Your task to perform on an android device: Open calendar and show me the first week of next month Image 0: 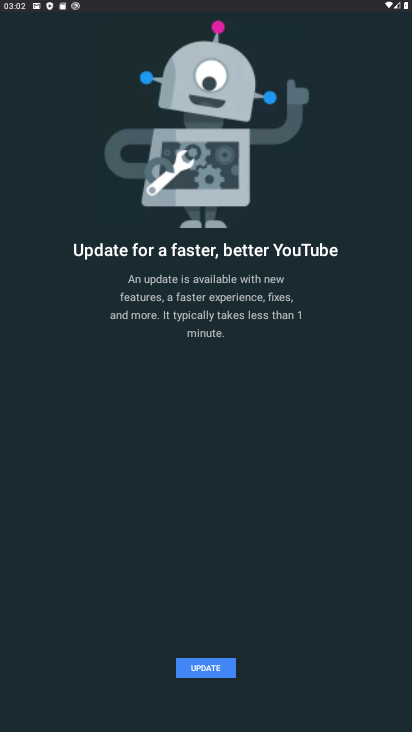
Step 0: press home button
Your task to perform on an android device: Open calendar and show me the first week of next month Image 1: 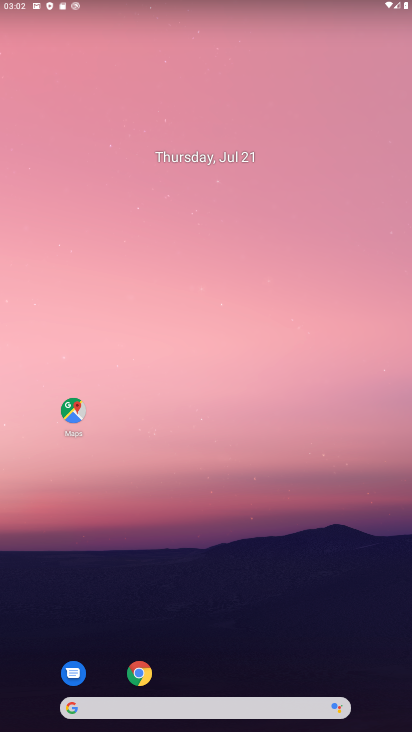
Step 1: drag from (326, 637) to (149, 99)
Your task to perform on an android device: Open calendar and show me the first week of next month Image 2: 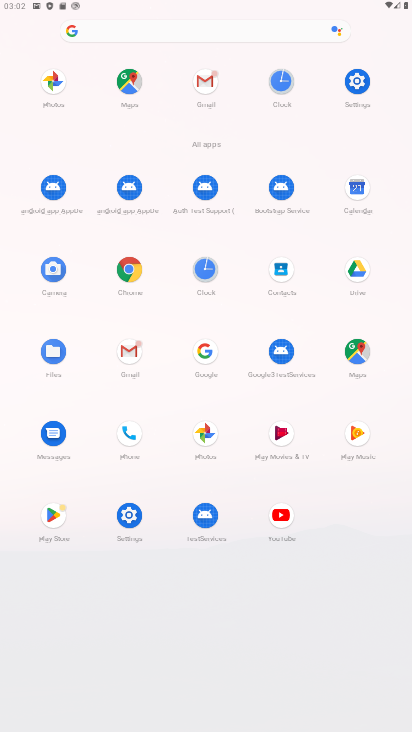
Step 2: click (362, 191)
Your task to perform on an android device: Open calendar and show me the first week of next month Image 3: 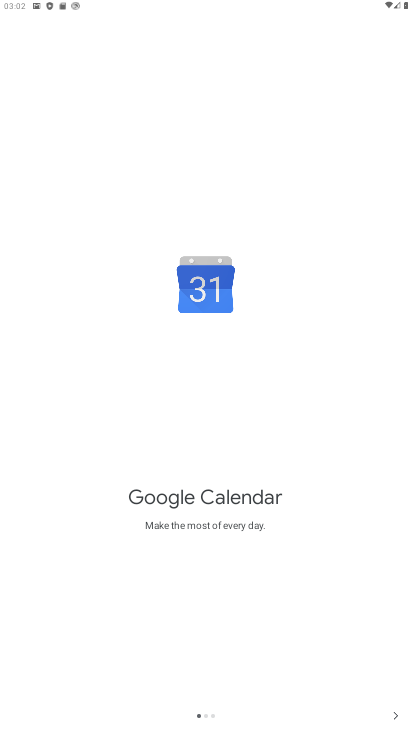
Step 3: click (395, 716)
Your task to perform on an android device: Open calendar and show me the first week of next month Image 4: 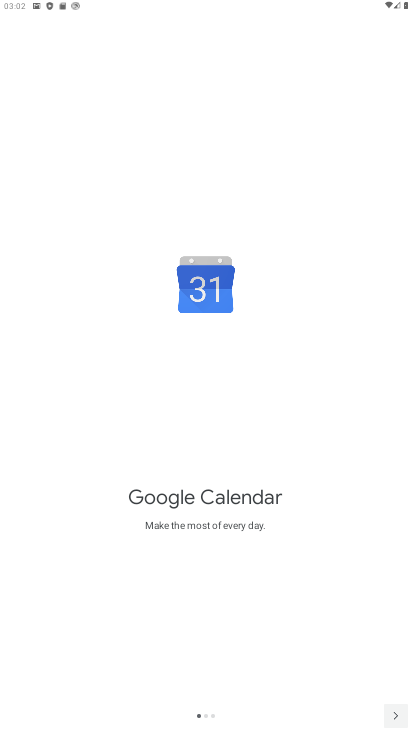
Step 4: click (395, 715)
Your task to perform on an android device: Open calendar and show me the first week of next month Image 5: 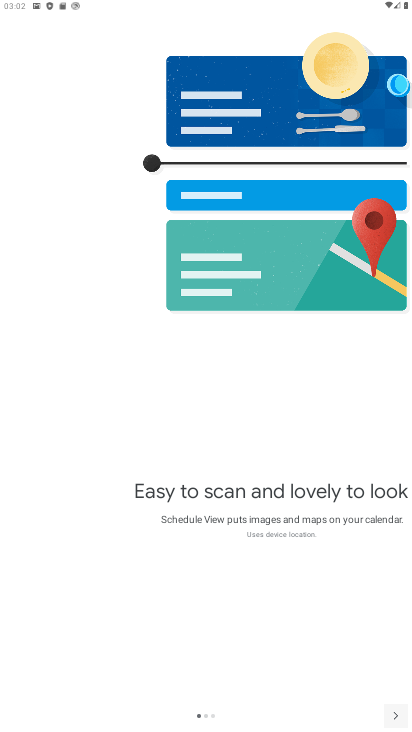
Step 5: click (395, 715)
Your task to perform on an android device: Open calendar and show me the first week of next month Image 6: 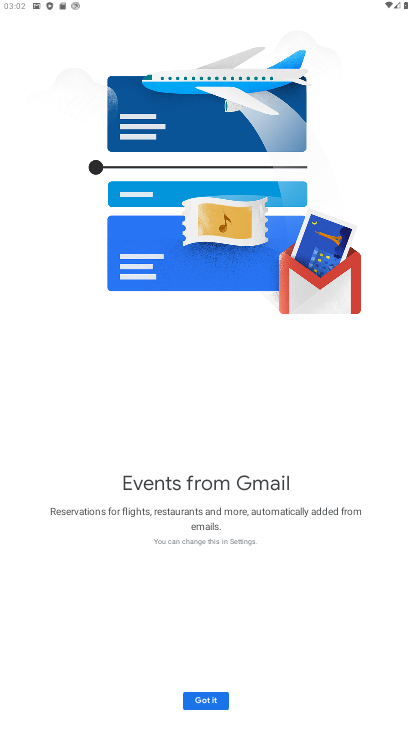
Step 6: click (188, 705)
Your task to perform on an android device: Open calendar and show me the first week of next month Image 7: 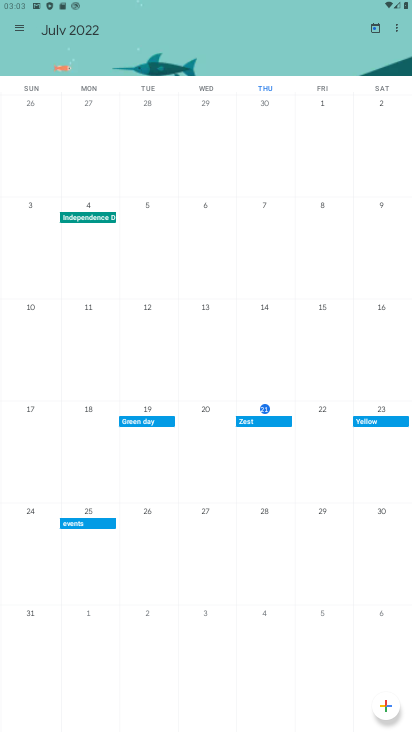
Step 7: click (72, 26)
Your task to perform on an android device: Open calendar and show me the first week of next month Image 8: 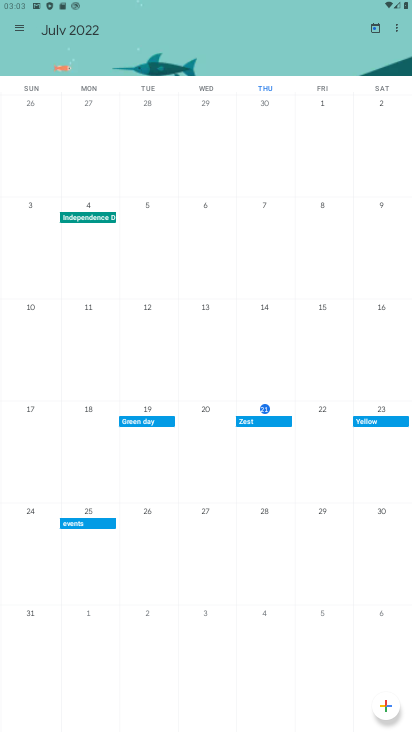
Step 8: click (84, 35)
Your task to perform on an android device: Open calendar and show me the first week of next month Image 9: 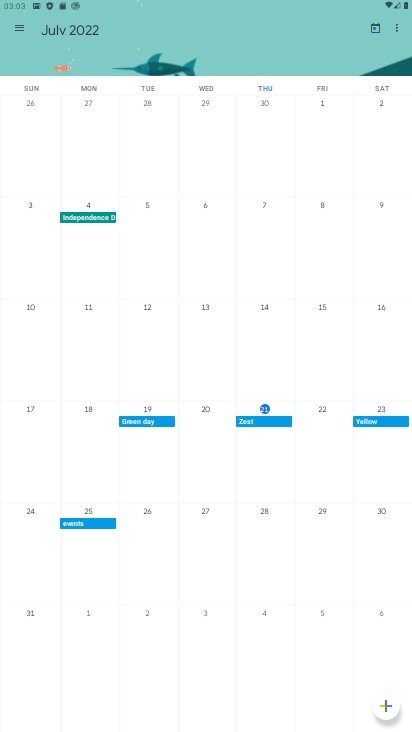
Step 9: click (88, 30)
Your task to perform on an android device: Open calendar and show me the first week of next month Image 10: 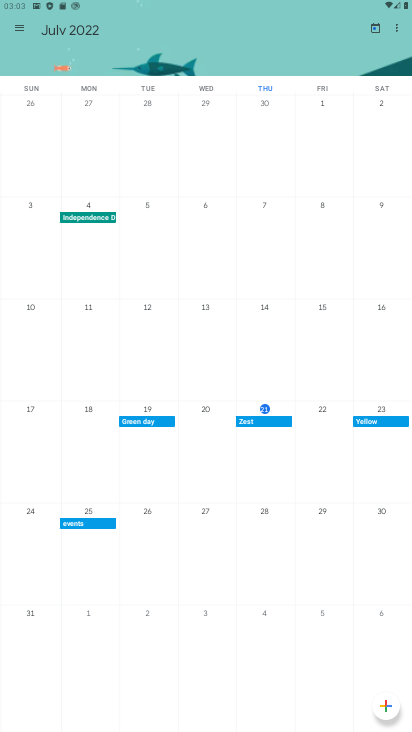
Step 10: click (59, 34)
Your task to perform on an android device: Open calendar and show me the first week of next month Image 11: 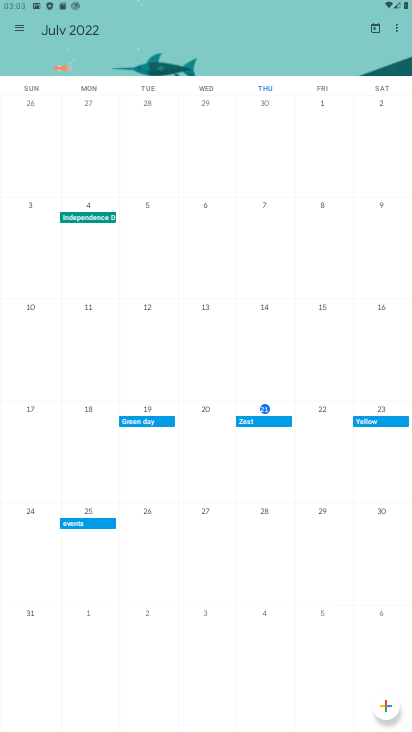
Step 11: click (60, 34)
Your task to perform on an android device: Open calendar and show me the first week of next month Image 12: 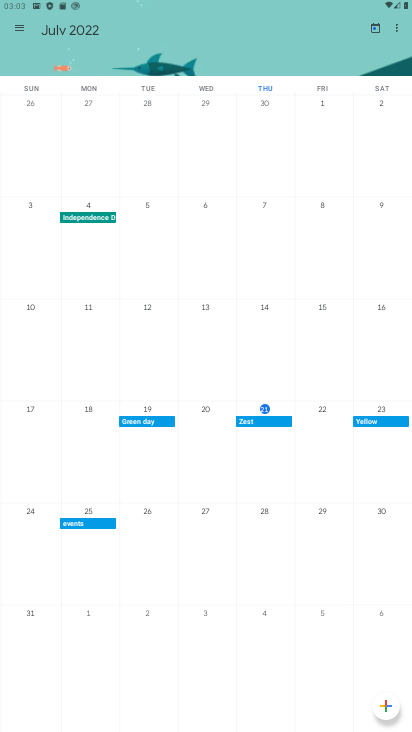
Step 12: drag from (366, 343) to (205, 361)
Your task to perform on an android device: Open calendar and show me the first week of next month Image 13: 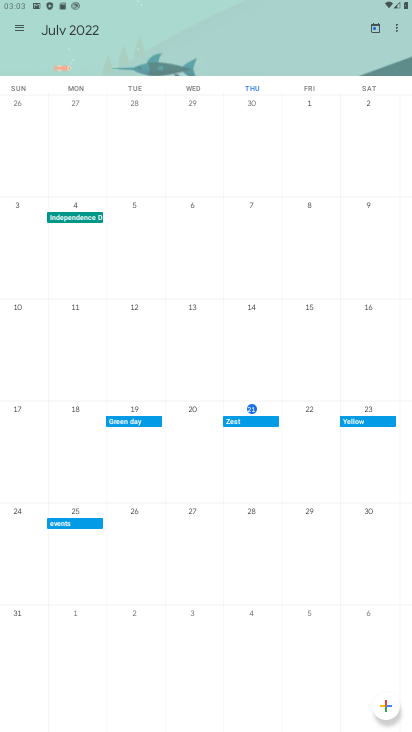
Step 13: drag from (227, 307) to (385, 484)
Your task to perform on an android device: Open calendar and show me the first week of next month Image 14: 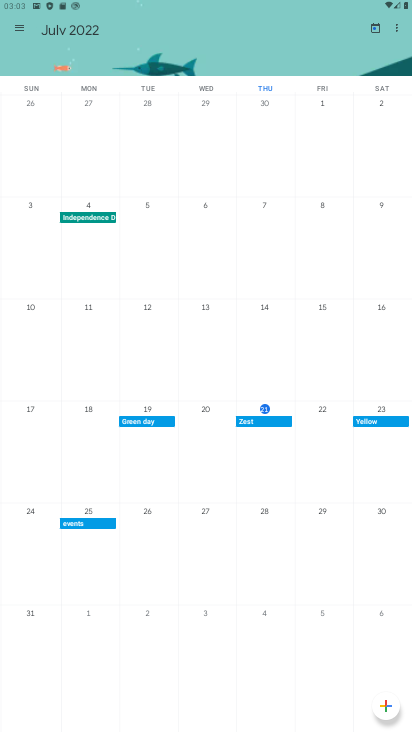
Step 14: drag from (349, 338) to (48, 369)
Your task to perform on an android device: Open calendar and show me the first week of next month Image 15: 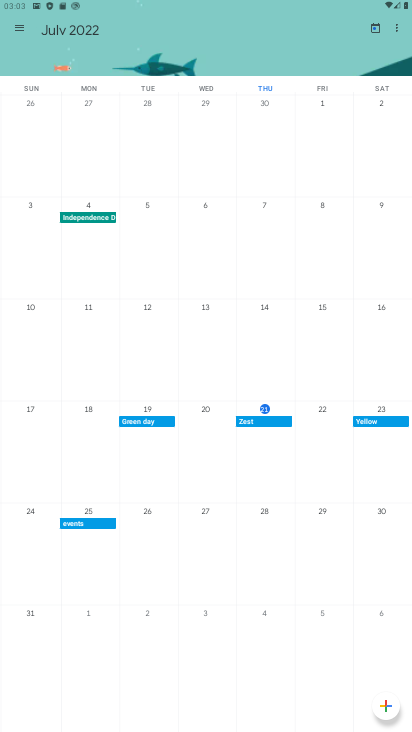
Step 15: drag from (381, 274) to (12, 299)
Your task to perform on an android device: Open calendar and show me the first week of next month Image 16: 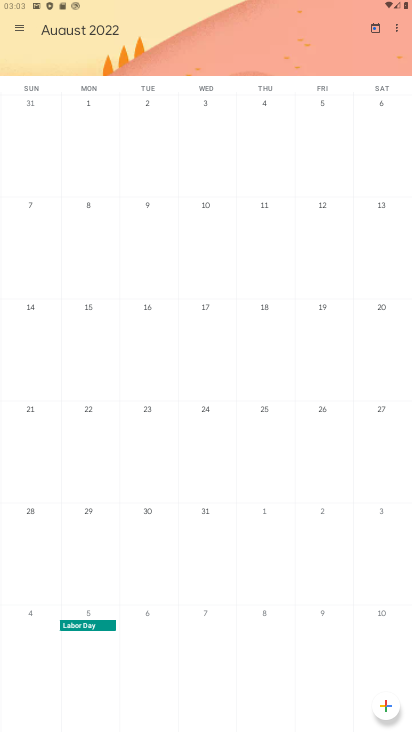
Step 16: click (210, 98)
Your task to perform on an android device: Open calendar and show me the first week of next month Image 17: 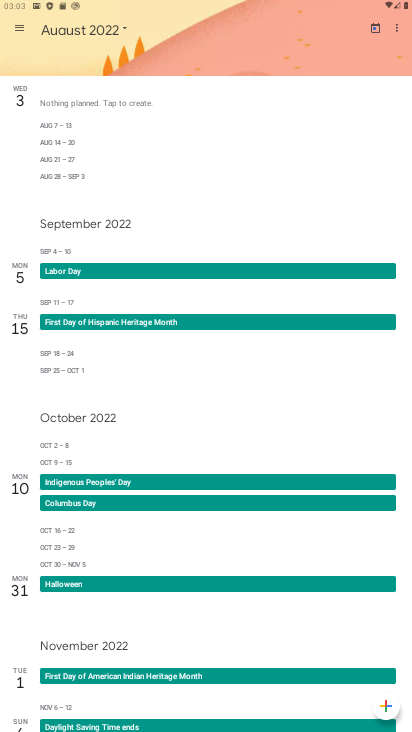
Step 17: click (22, 22)
Your task to perform on an android device: Open calendar and show me the first week of next month Image 18: 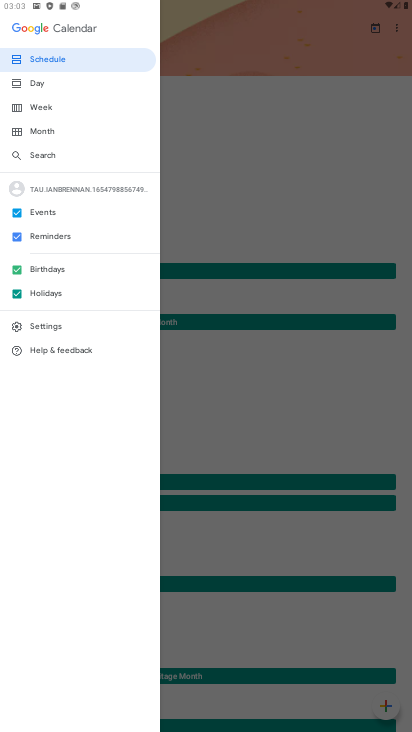
Step 18: click (44, 103)
Your task to perform on an android device: Open calendar and show me the first week of next month Image 19: 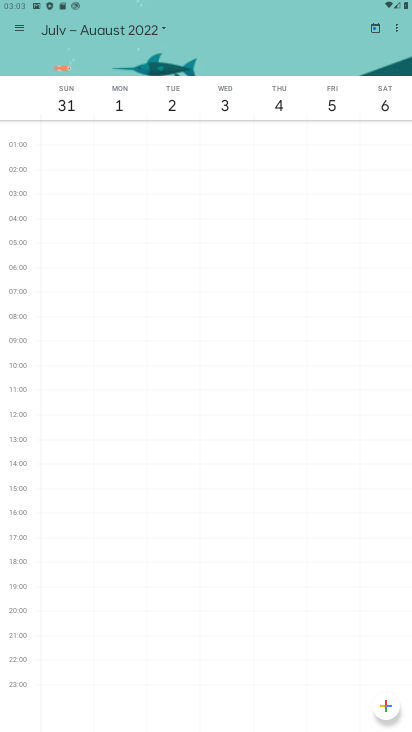
Step 19: task complete